Your task to perform on an android device: Go to display settings Image 0: 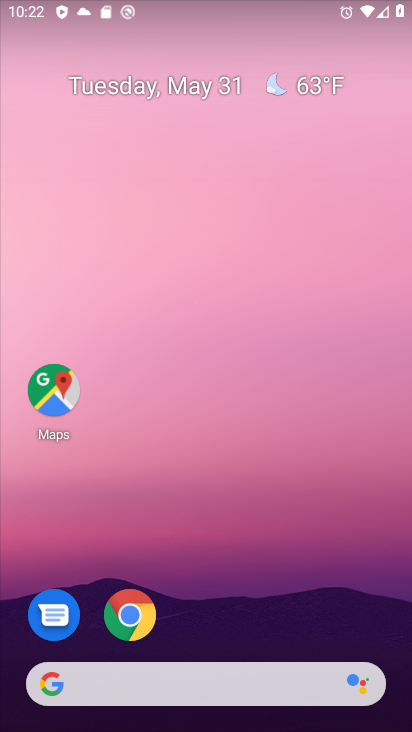
Step 0: drag from (153, 521) to (277, 25)
Your task to perform on an android device: Go to display settings Image 1: 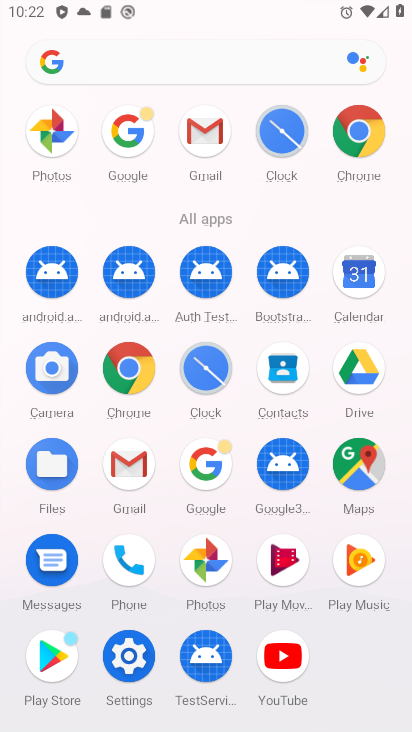
Step 1: drag from (216, 639) to (288, 196)
Your task to perform on an android device: Go to display settings Image 2: 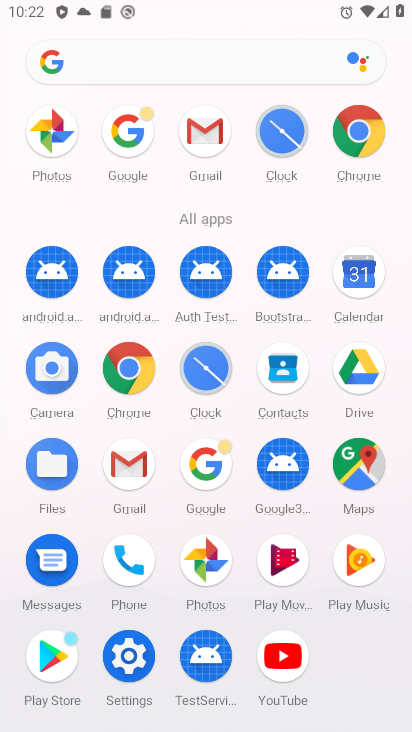
Step 2: click (122, 653)
Your task to perform on an android device: Go to display settings Image 3: 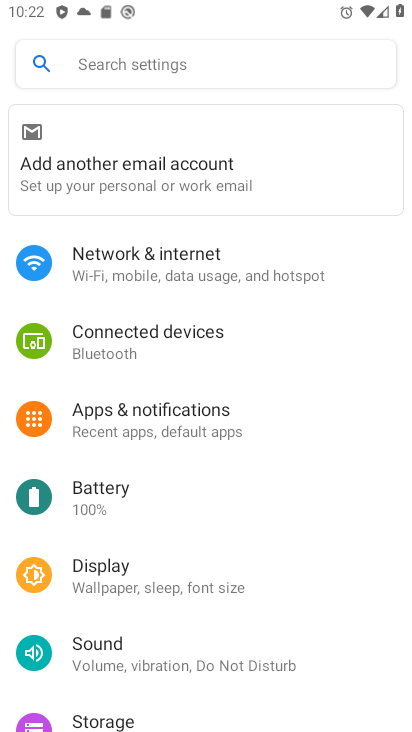
Step 3: click (166, 577)
Your task to perform on an android device: Go to display settings Image 4: 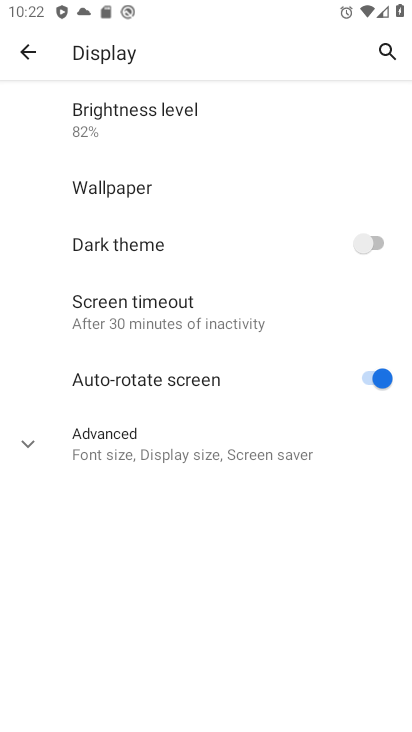
Step 4: task complete